Your task to perform on an android device: Open battery settings Image 0: 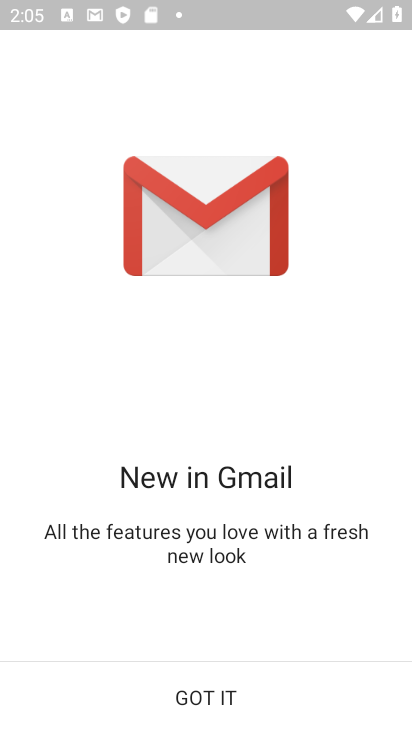
Step 0: press home button
Your task to perform on an android device: Open battery settings Image 1: 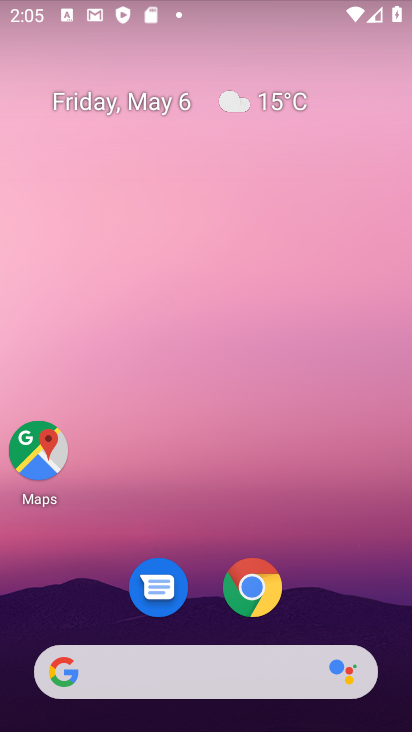
Step 1: drag from (379, 568) to (411, 145)
Your task to perform on an android device: Open battery settings Image 2: 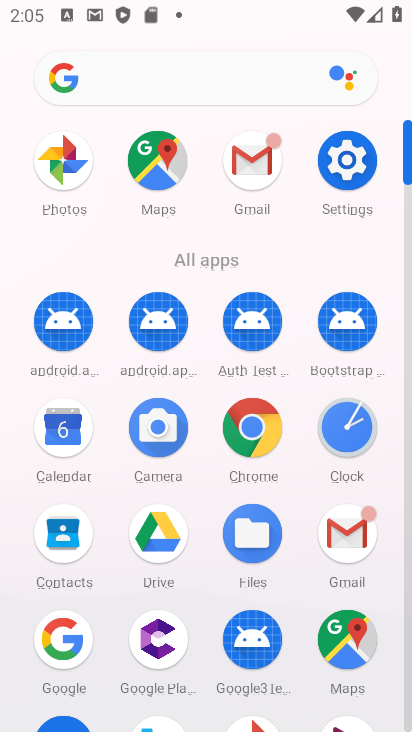
Step 2: click (363, 166)
Your task to perform on an android device: Open battery settings Image 3: 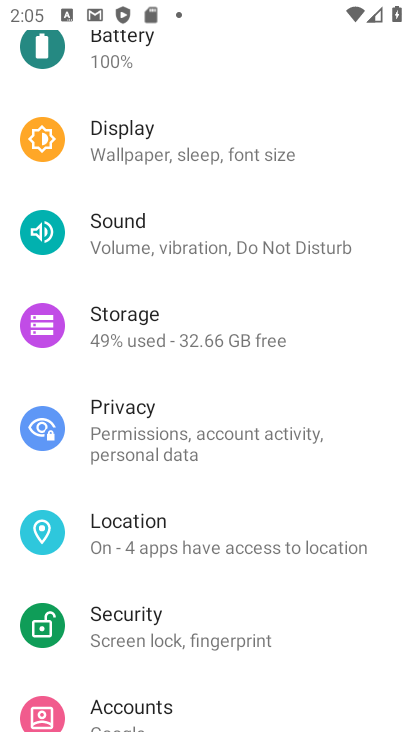
Step 3: drag from (263, 311) to (245, 685)
Your task to perform on an android device: Open battery settings Image 4: 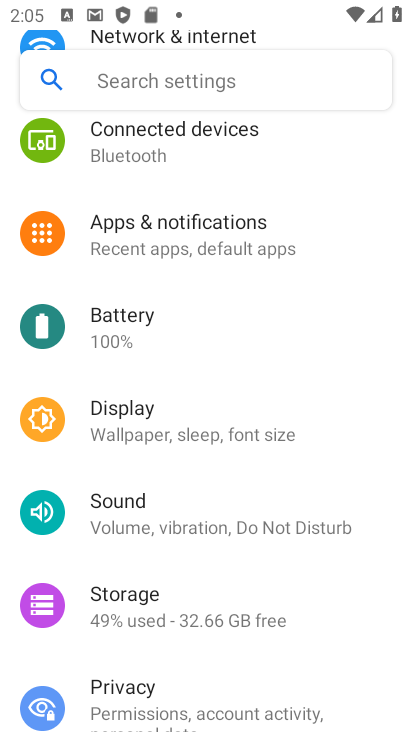
Step 4: click (123, 326)
Your task to perform on an android device: Open battery settings Image 5: 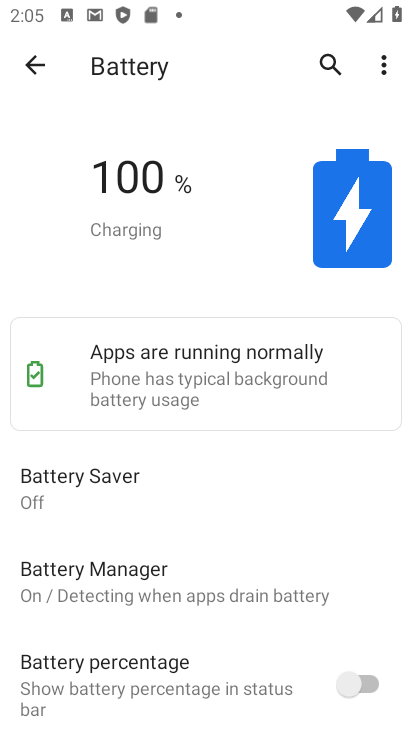
Step 5: task complete